Your task to perform on an android device: visit the assistant section in the google photos Image 0: 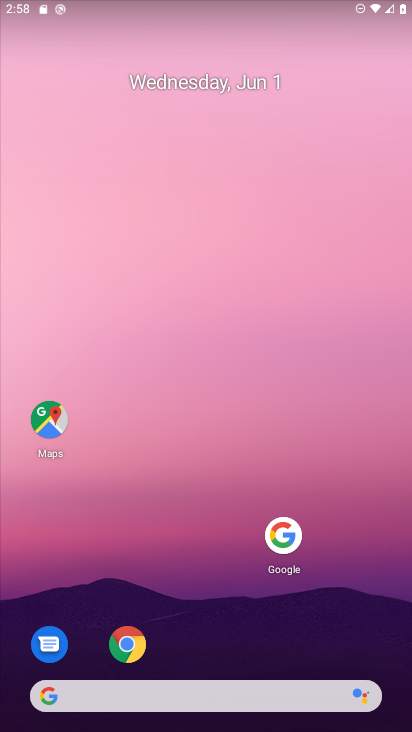
Step 0: drag from (208, 690) to (356, 245)
Your task to perform on an android device: visit the assistant section in the google photos Image 1: 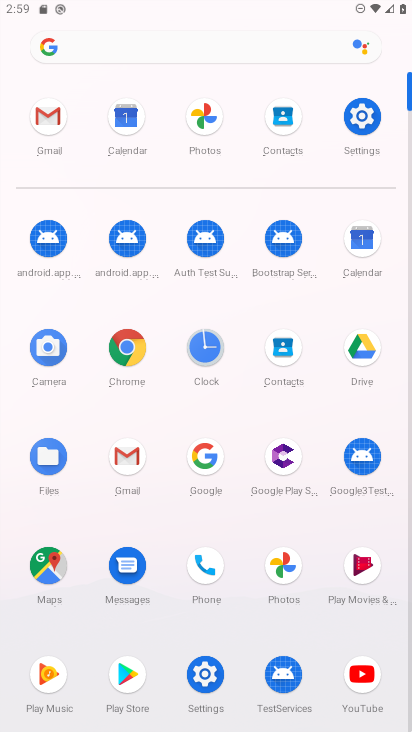
Step 1: click (285, 553)
Your task to perform on an android device: visit the assistant section in the google photos Image 2: 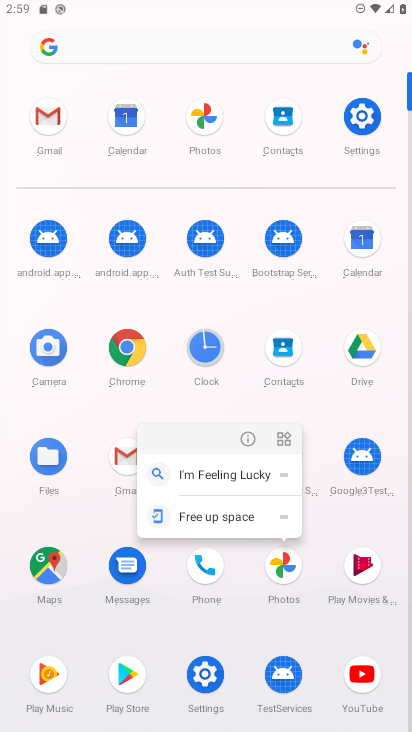
Step 2: click (286, 564)
Your task to perform on an android device: visit the assistant section in the google photos Image 3: 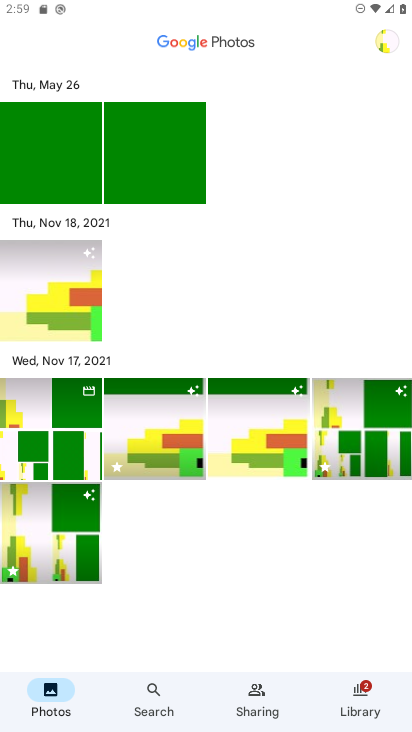
Step 3: click (255, 704)
Your task to perform on an android device: visit the assistant section in the google photos Image 4: 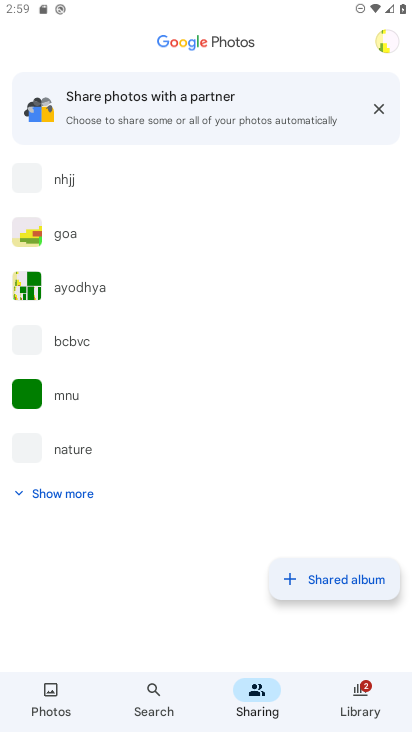
Step 4: click (161, 716)
Your task to perform on an android device: visit the assistant section in the google photos Image 5: 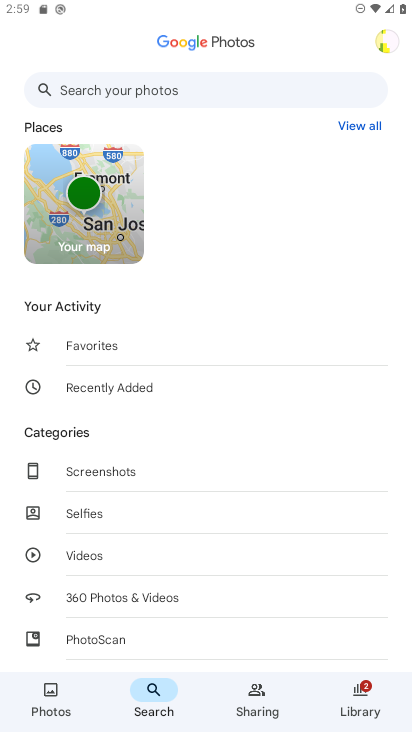
Step 5: task complete